Your task to perform on an android device: read, delete, or share a saved page in the chrome app Image 0: 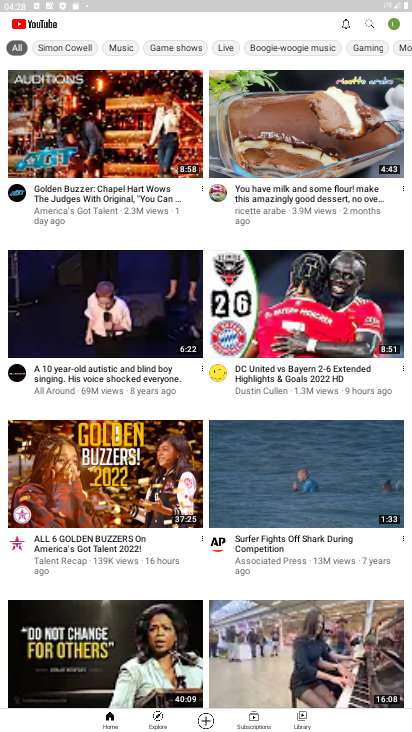
Step 0: press home button
Your task to perform on an android device: read, delete, or share a saved page in the chrome app Image 1: 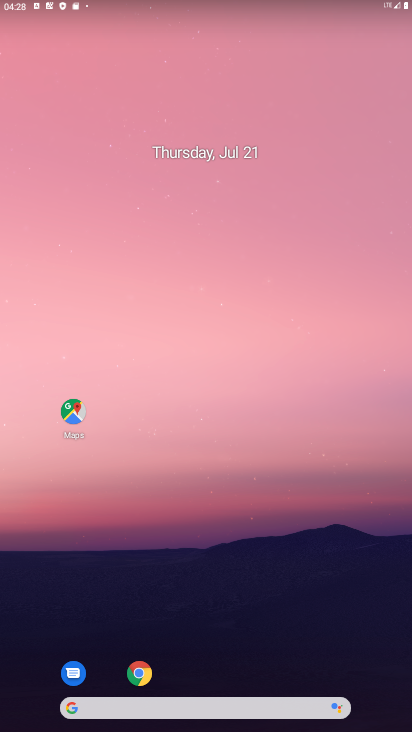
Step 1: click (138, 675)
Your task to perform on an android device: read, delete, or share a saved page in the chrome app Image 2: 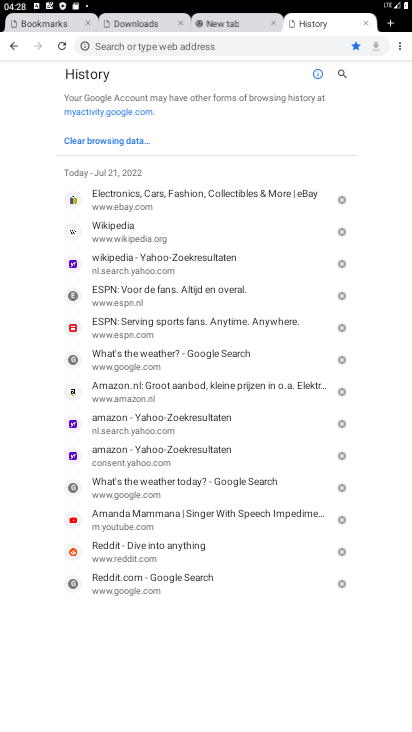
Step 2: click (398, 51)
Your task to perform on an android device: read, delete, or share a saved page in the chrome app Image 3: 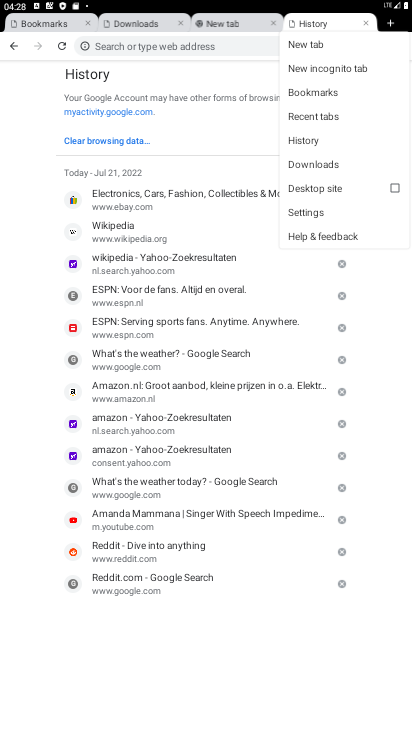
Step 3: click (298, 163)
Your task to perform on an android device: read, delete, or share a saved page in the chrome app Image 4: 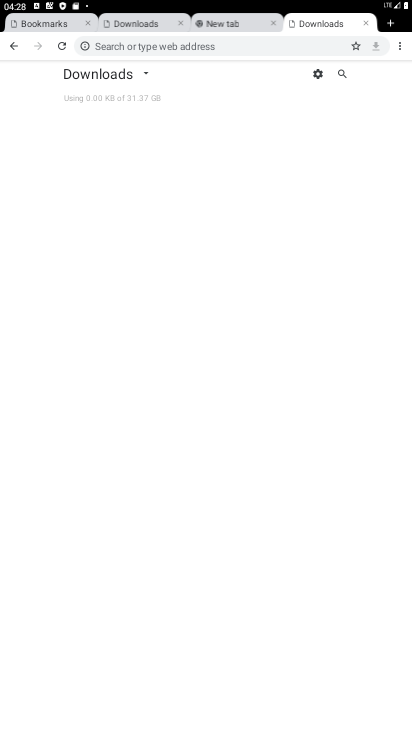
Step 4: click (147, 74)
Your task to perform on an android device: read, delete, or share a saved page in the chrome app Image 5: 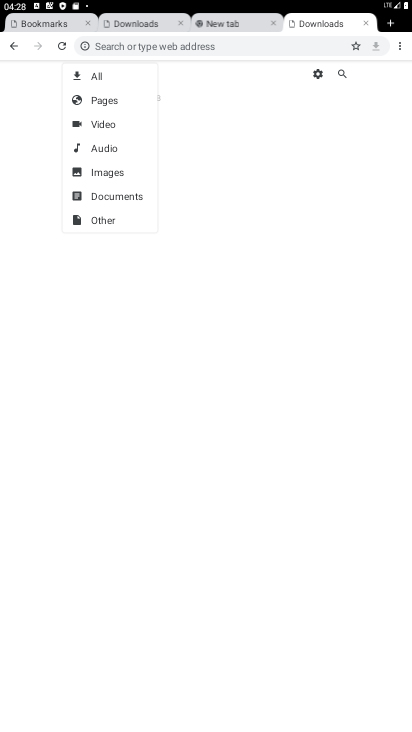
Step 5: click (103, 99)
Your task to perform on an android device: read, delete, or share a saved page in the chrome app Image 6: 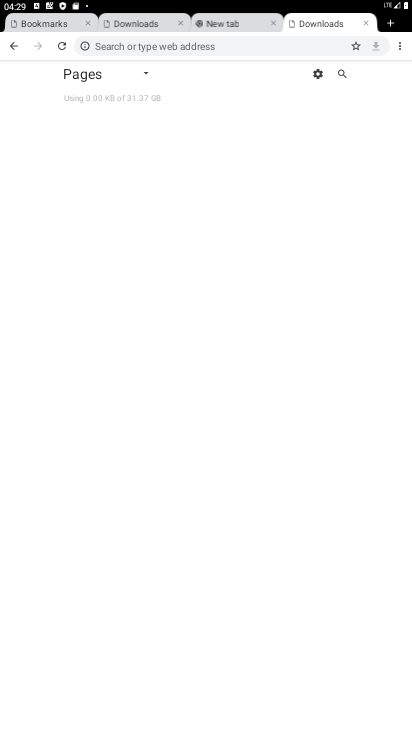
Step 6: task complete